Your task to perform on an android device: change the upload size in google photos Image 0: 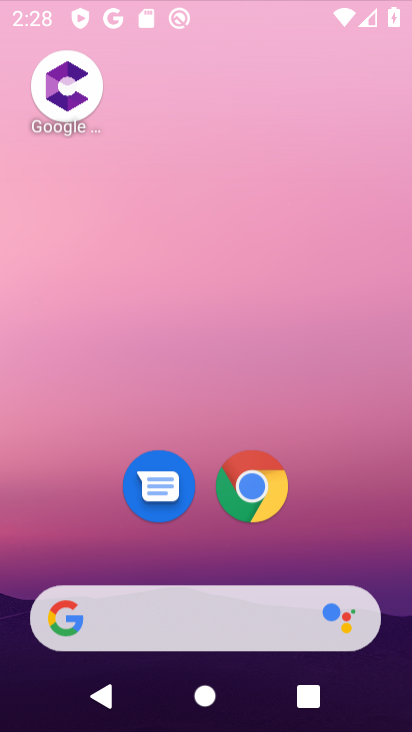
Step 0: drag from (137, 13) to (153, 604)
Your task to perform on an android device: change the upload size in google photos Image 1: 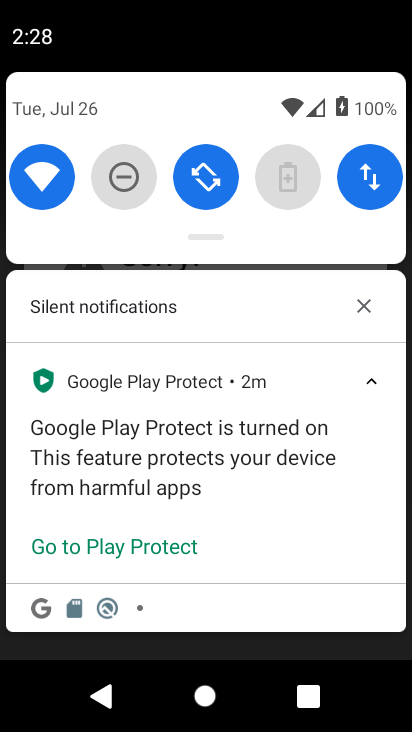
Step 1: drag from (97, 489) to (264, 0)
Your task to perform on an android device: change the upload size in google photos Image 2: 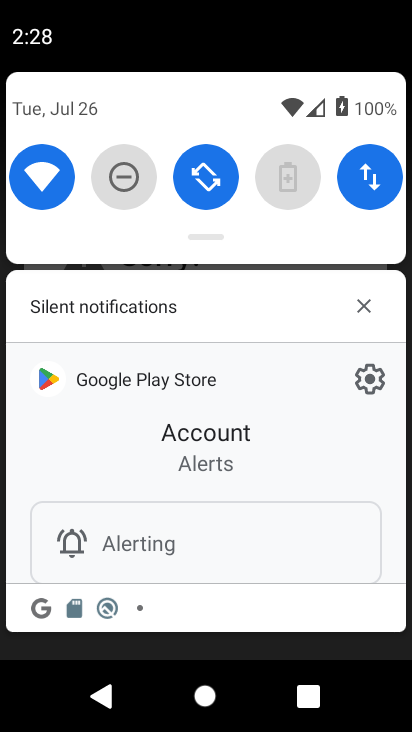
Step 2: press back button
Your task to perform on an android device: change the upload size in google photos Image 3: 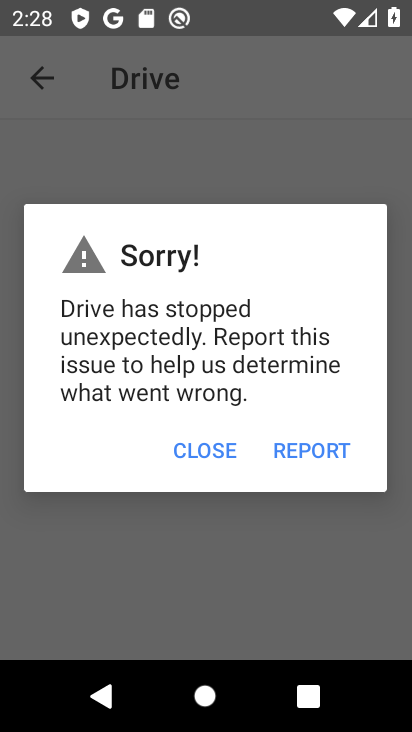
Step 3: click (198, 446)
Your task to perform on an android device: change the upload size in google photos Image 4: 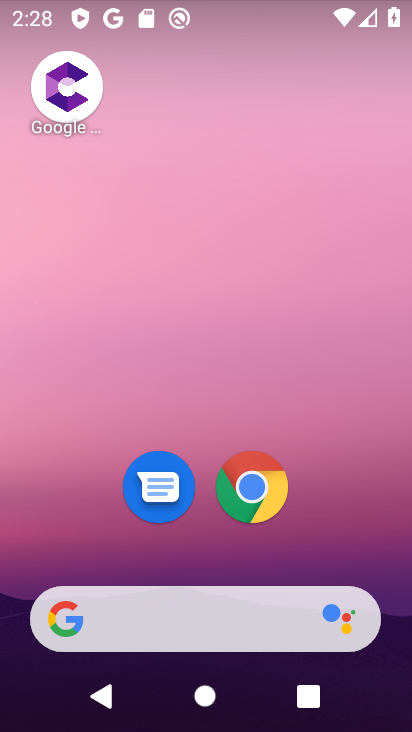
Step 4: drag from (166, 557) to (351, 6)
Your task to perform on an android device: change the upload size in google photos Image 5: 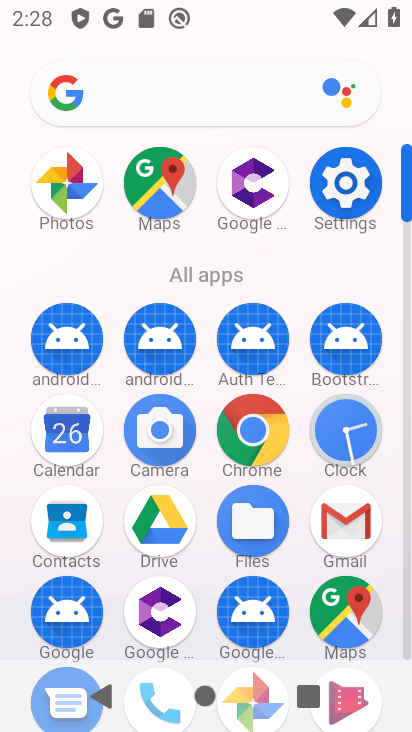
Step 5: click (68, 194)
Your task to perform on an android device: change the upload size in google photos Image 6: 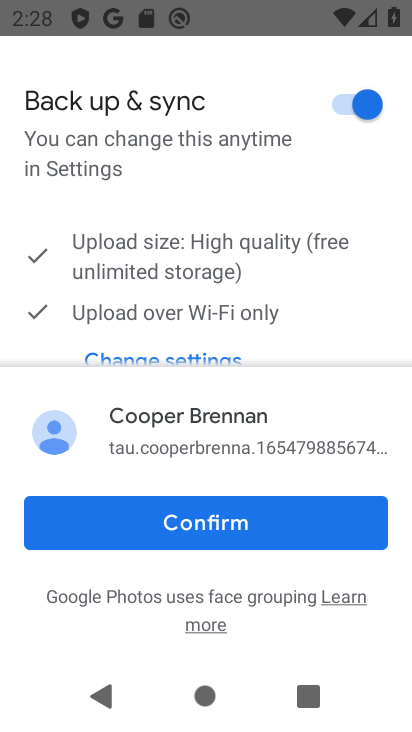
Step 6: click (156, 516)
Your task to perform on an android device: change the upload size in google photos Image 7: 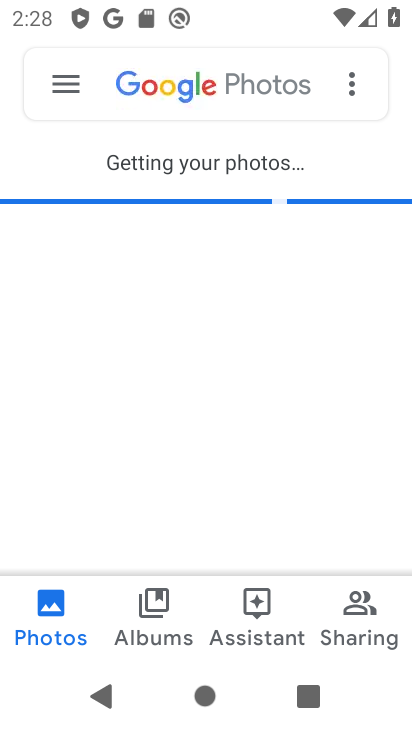
Step 7: click (66, 80)
Your task to perform on an android device: change the upload size in google photos Image 8: 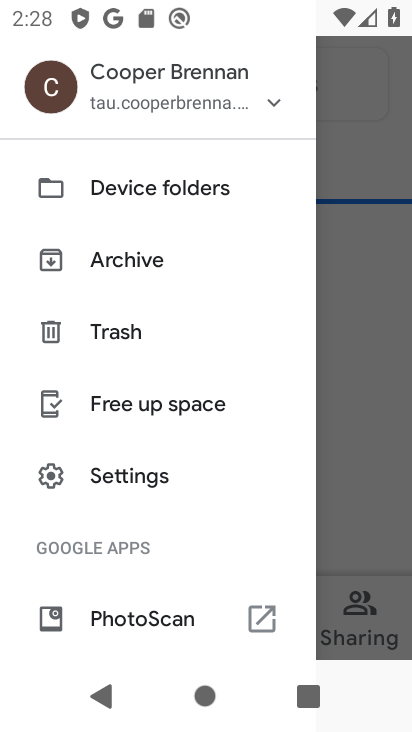
Step 8: click (142, 475)
Your task to perform on an android device: change the upload size in google photos Image 9: 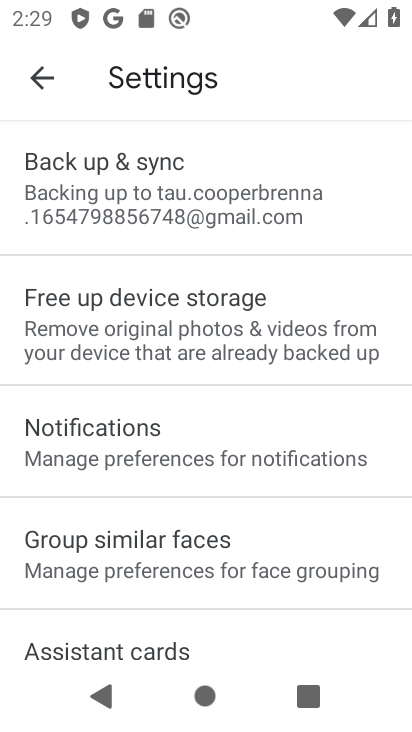
Step 9: click (210, 193)
Your task to perform on an android device: change the upload size in google photos Image 10: 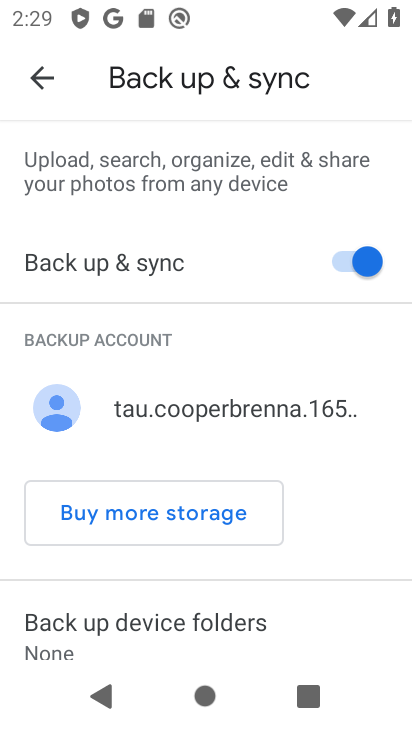
Step 10: drag from (132, 600) to (230, 129)
Your task to perform on an android device: change the upload size in google photos Image 11: 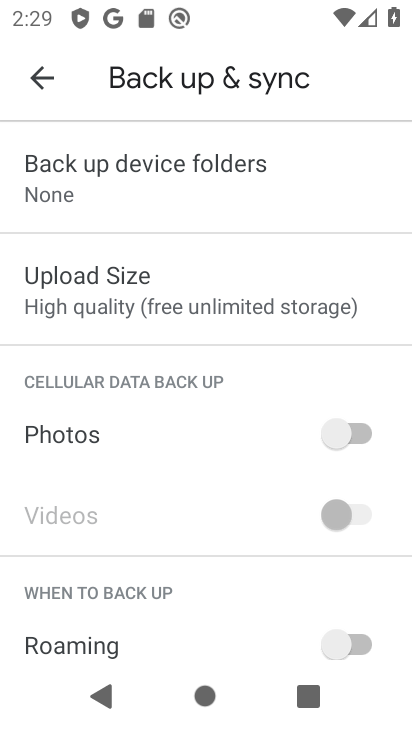
Step 11: click (88, 283)
Your task to perform on an android device: change the upload size in google photos Image 12: 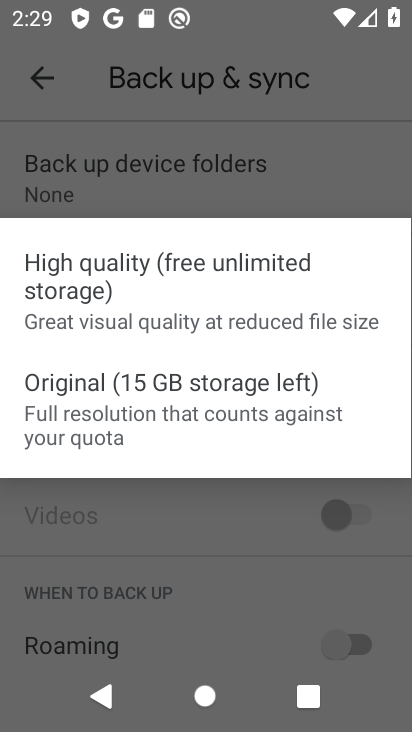
Step 12: click (64, 406)
Your task to perform on an android device: change the upload size in google photos Image 13: 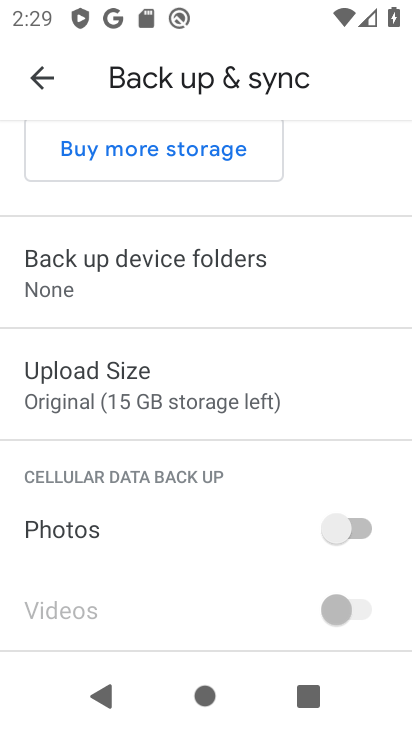
Step 13: task complete